Your task to perform on an android device: Show me popular games on the Play Store Image 0: 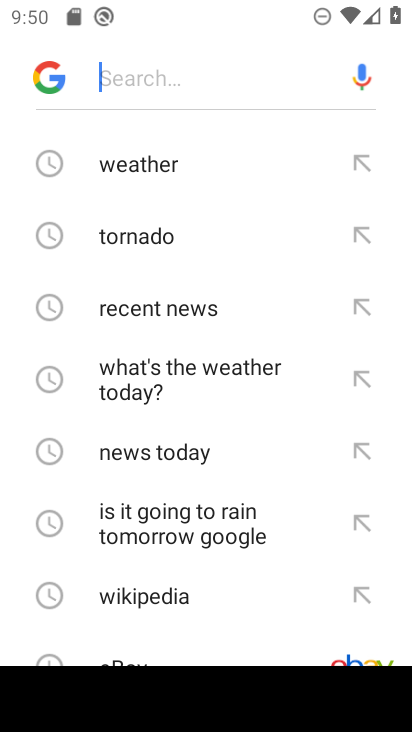
Step 0: press back button
Your task to perform on an android device: Show me popular games on the Play Store Image 1: 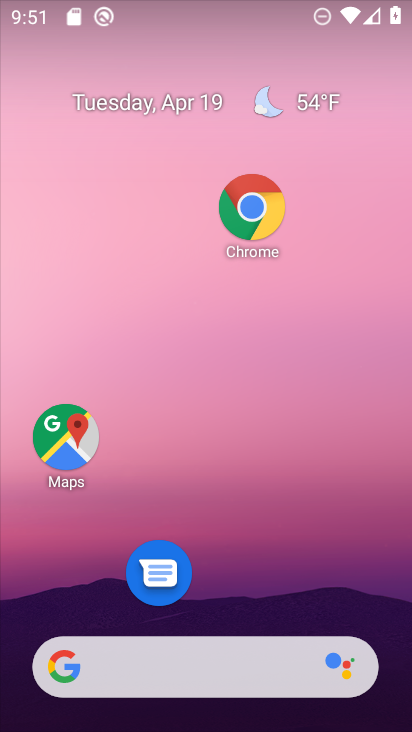
Step 1: drag from (213, 523) to (216, 183)
Your task to perform on an android device: Show me popular games on the Play Store Image 2: 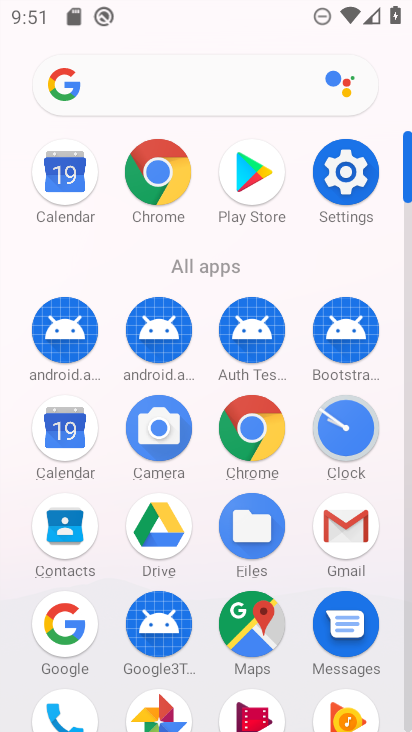
Step 2: click (244, 177)
Your task to perform on an android device: Show me popular games on the Play Store Image 3: 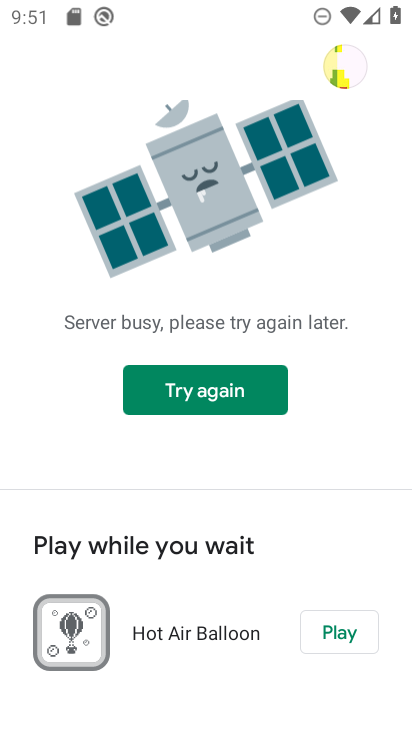
Step 3: click (227, 400)
Your task to perform on an android device: Show me popular games on the Play Store Image 4: 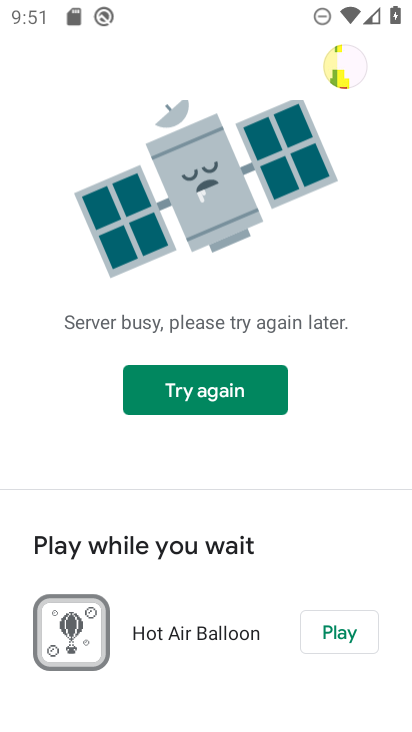
Step 4: task complete